Your task to perform on an android device: set default search engine in the chrome app Image 0: 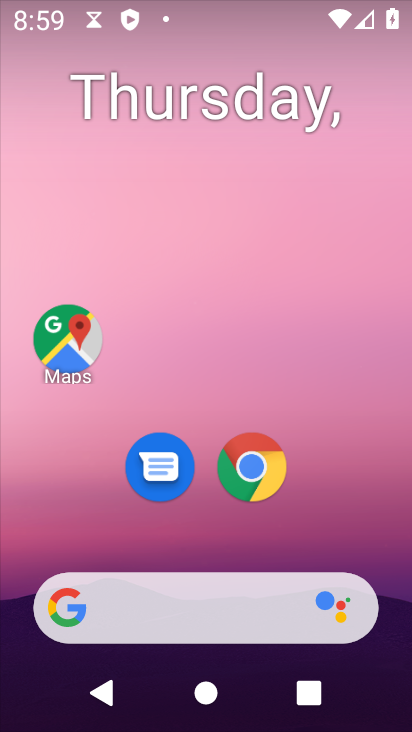
Step 0: drag from (403, 85) to (403, 47)
Your task to perform on an android device: set default search engine in the chrome app Image 1: 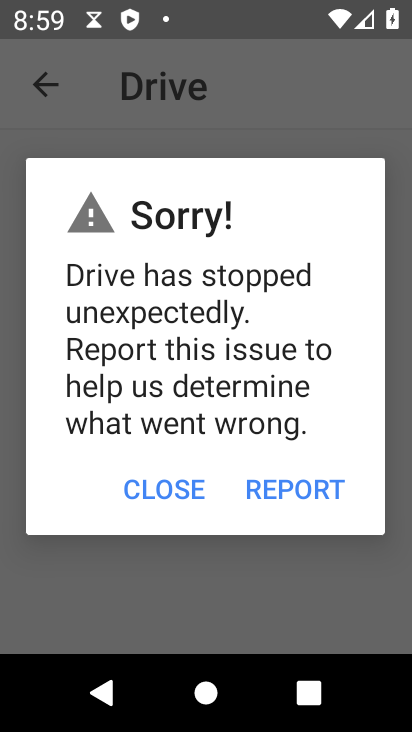
Step 1: press home button
Your task to perform on an android device: set default search engine in the chrome app Image 2: 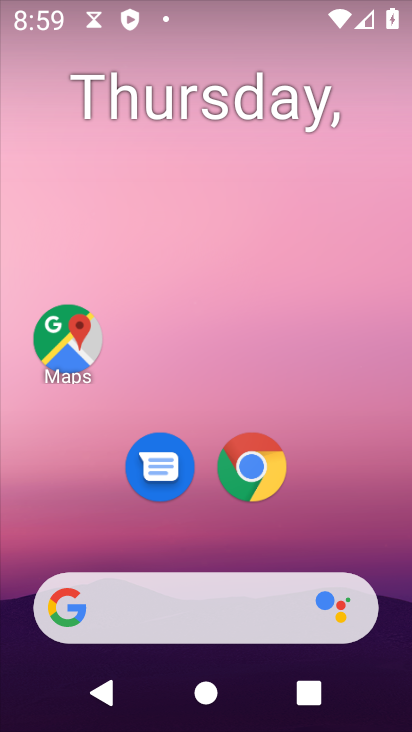
Step 2: click (250, 452)
Your task to perform on an android device: set default search engine in the chrome app Image 3: 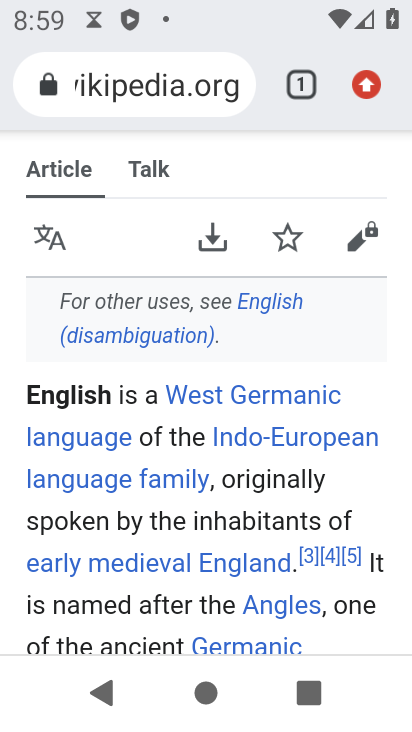
Step 3: click (351, 102)
Your task to perform on an android device: set default search engine in the chrome app Image 4: 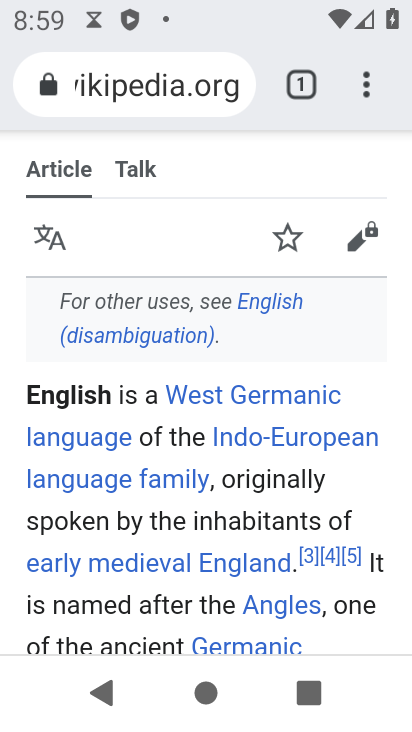
Step 4: click (355, 84)
Your task to perform on an android device: set default search engine in the chrome app Image 5: 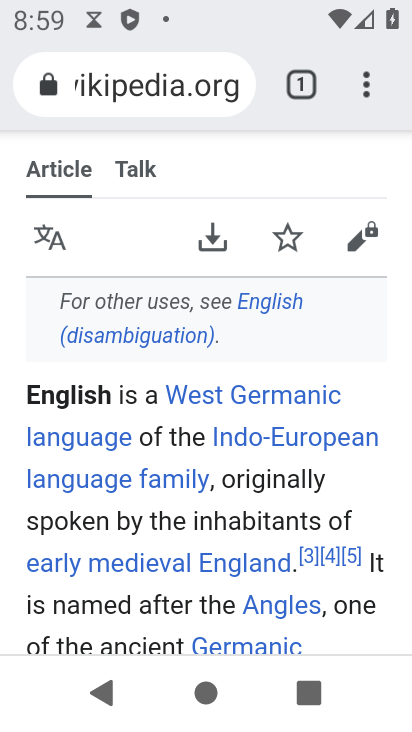
Step 5: click (367, 89)
Your task to perform on an android device: set default search engine in the chrome app Image 6: 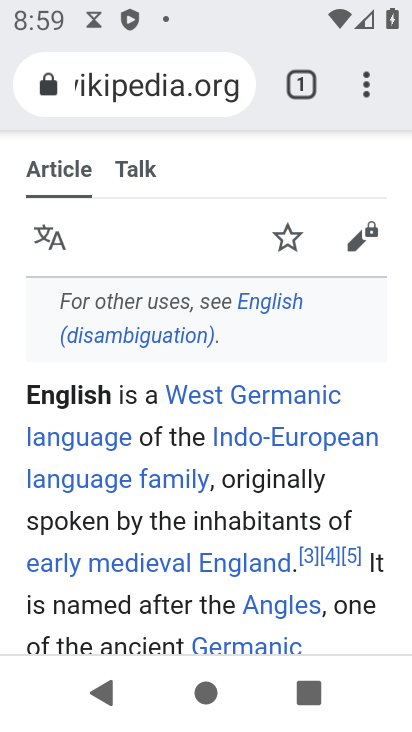
Step 6: click (369, 88)
Your task to perform on an android device: set default search engine in the chrome app Image 7: 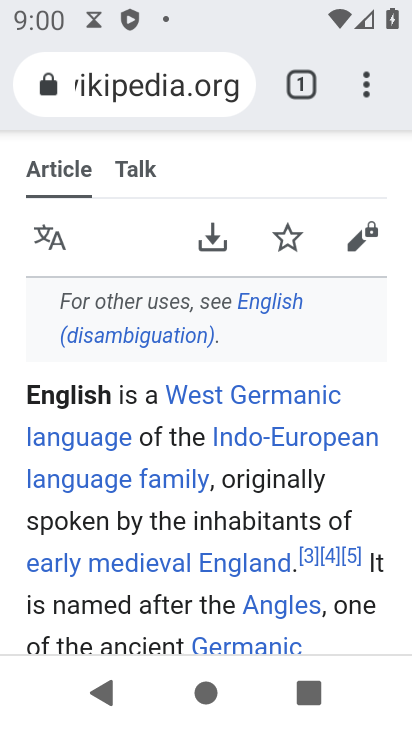
Step 7: click (369, 88)
Your task to perform on an android device: set default search engine in the chrome app Image 8: 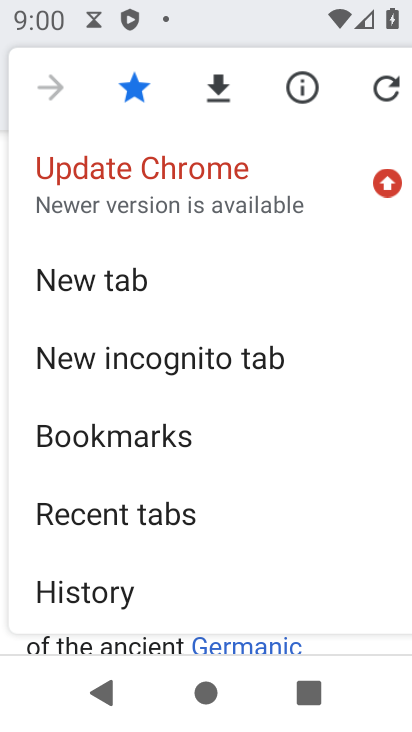
Step 8: drag from (173, 536) to (161, 465)
Your task to perform on an android device: set default search engine in the chrome app Image 9: 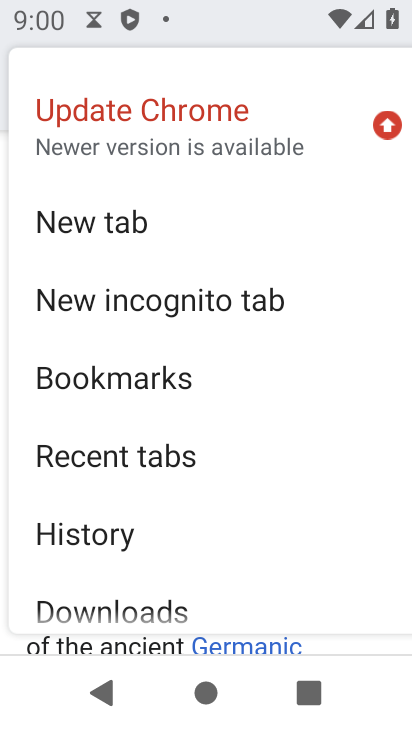
Step 9: drag from (138, 531) to (119, 416)
Your task to perform on an android device: set default search engine in the chrome app Image 10: 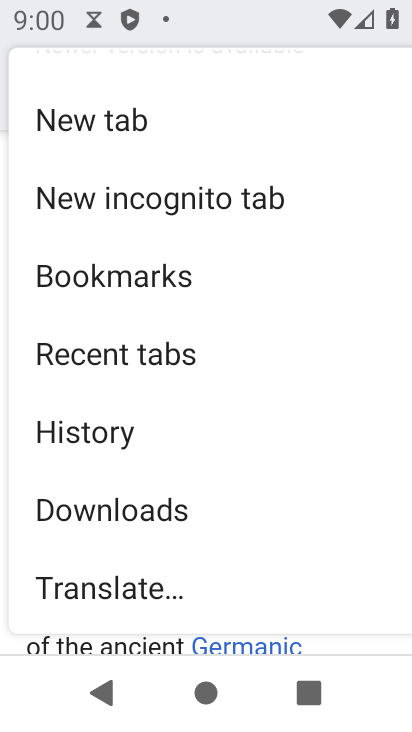
Step 10: drag from (139, 511) to (131, 412)
Your task to perform on an android device: set default search engine in the chrome app Image 11: 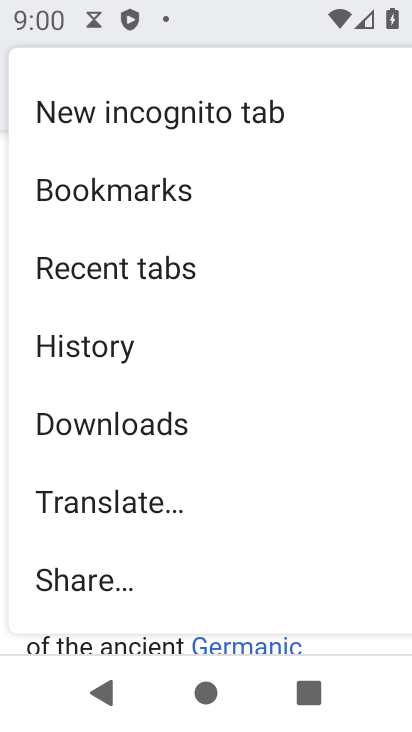
Step 11: drag from (118, 487) to (119, 397)
Your task to perform on an android device: set default search engine in the chrome app Image 12: 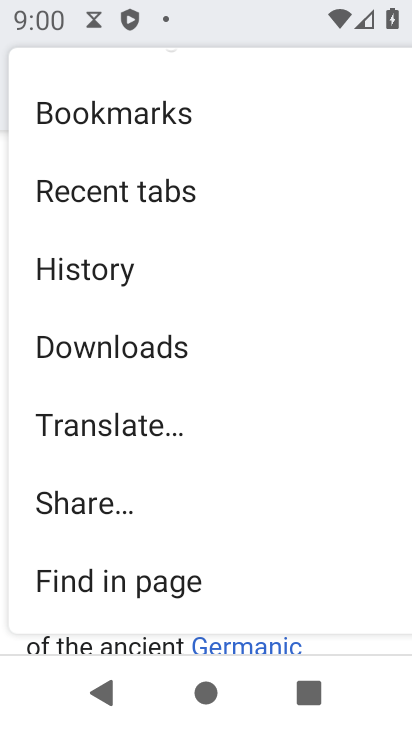
Step 12: drag from (108, 495) to (154, 372)
Your task to perform on an android device: set default search engine in the chrome app Image 13: 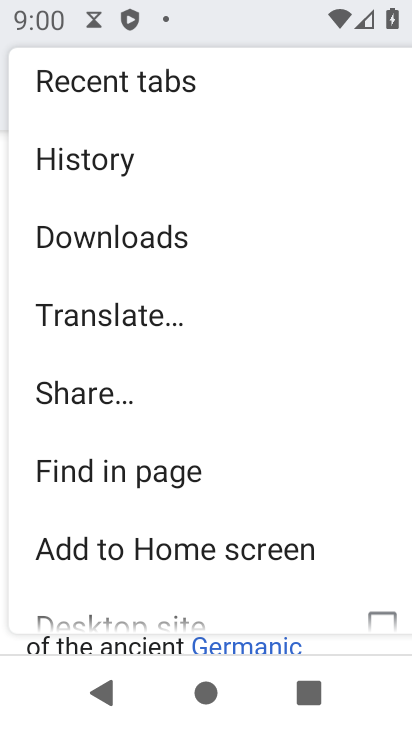
Step 13: drag from (164, 472) to (145, 365)
Your task to perform on an android device: set default search engine in the chrome app Image 14: 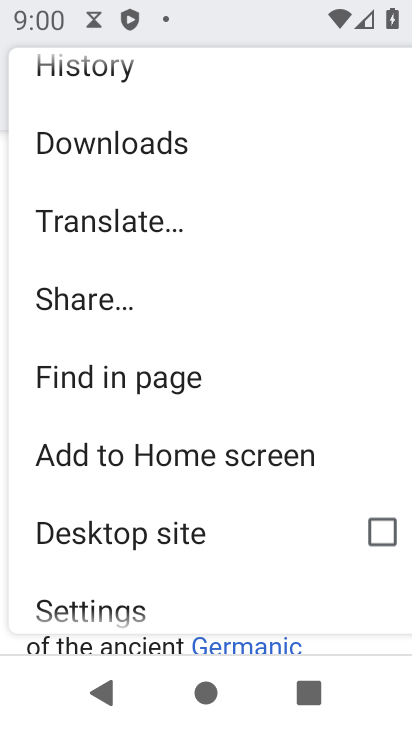
Step 14: drag from (138, 491) to (131, 406)
Your task to perform on an android device: set default search engine in the chrome app Image 15: 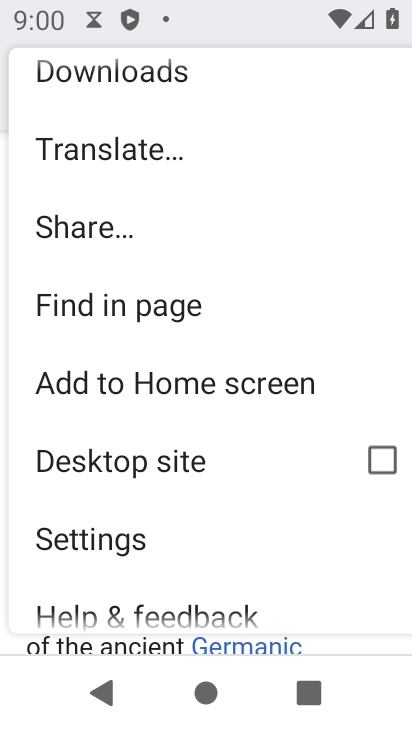
Step 15: click (127, 534)
Your task to perform on an android device: set default search engine in the chrome app Image 16: 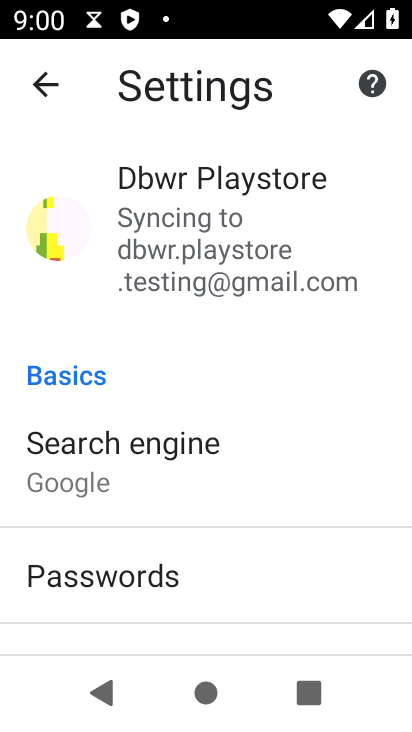
Step 16: click (114, 456)
Your task to perform on an android device: set default search engine in the chrome app Image 17: 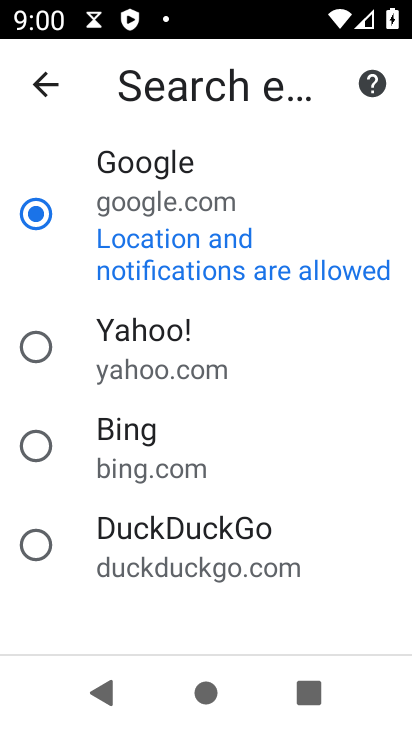
Step 17: click (178, 355)
Your task to perform on an android device: set default search engine in the chrome app Image 18: 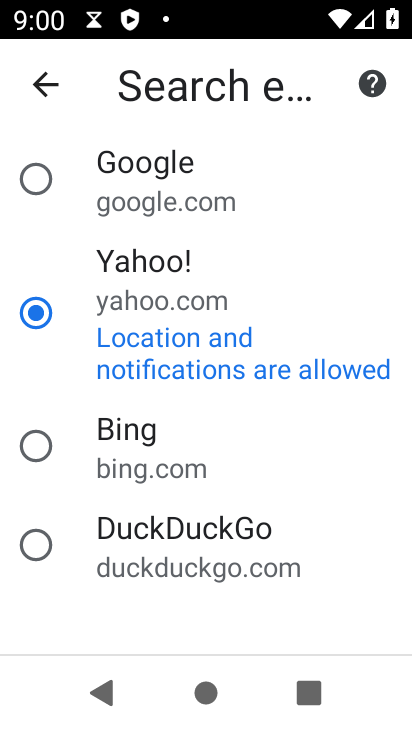
Step 18: task complete